Your task to perform on an android device: snooze an email in the gmail app Image 0: 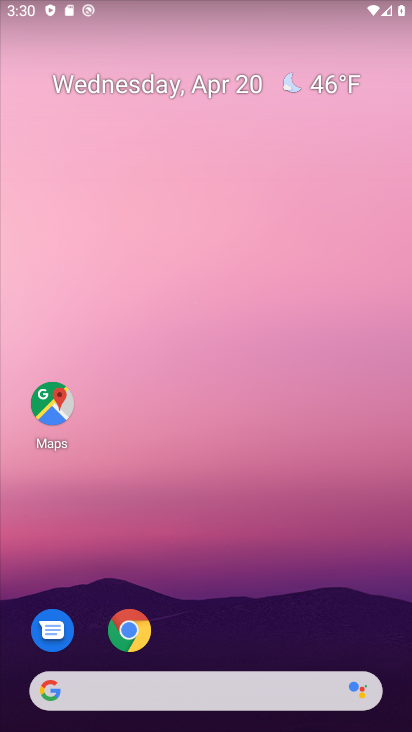
Step 0: drag from (141, 503) to (177, 247)
Your task to perform on an android device: snooze an email in the gmail app Image 1: 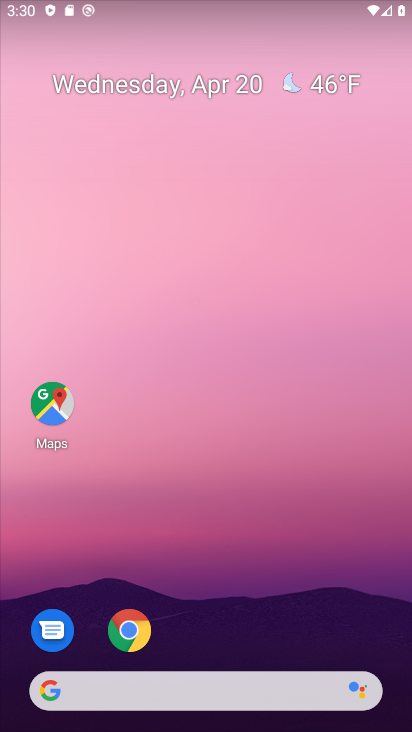
Step 1: drag from (177, 668) to (226, 256)
Your task to perform on an android device: snooze an email in the gmail app Image 2: 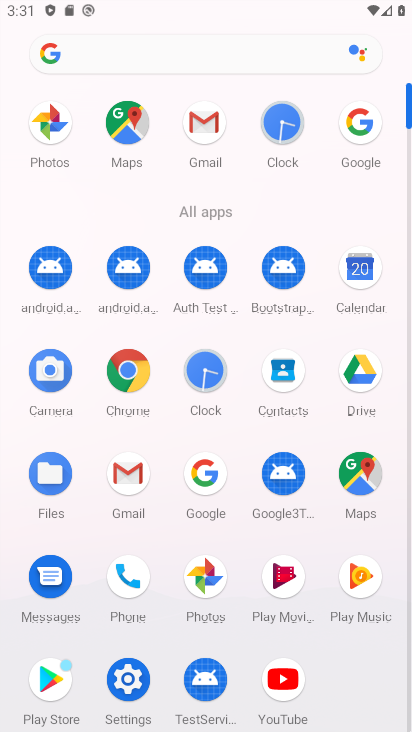
Step 2: click (117, 478)
Your task to perform on an android device: snooze an email in the gmail app Image 3: 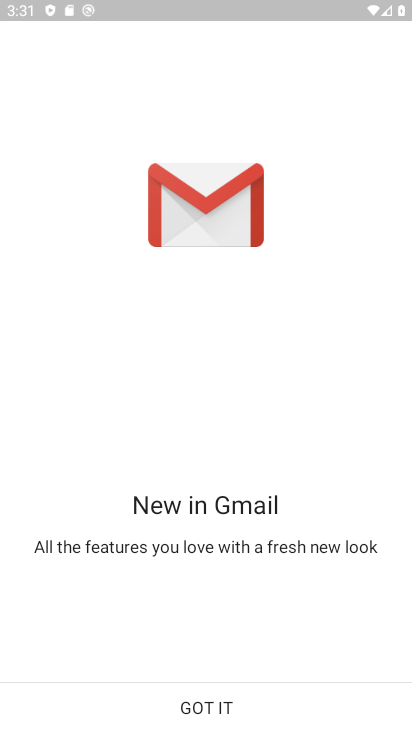
Step 3: click (202, 716)
Your task to perform on an android device: snooze an email in the gmail app Image 4: 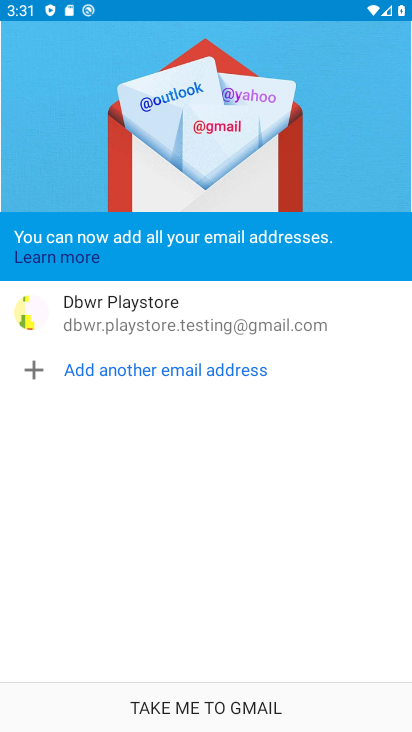
Step 4: click (173, 710)
Your task to perform on an android device: snooze an email in the gmail app Image 5: 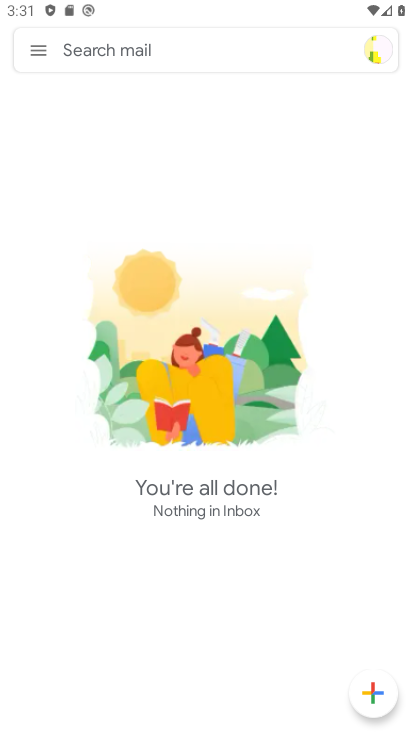
Step 5: click (40, 38)
Your task to perform on an android device: snooze an email in the gmail app Image 6: 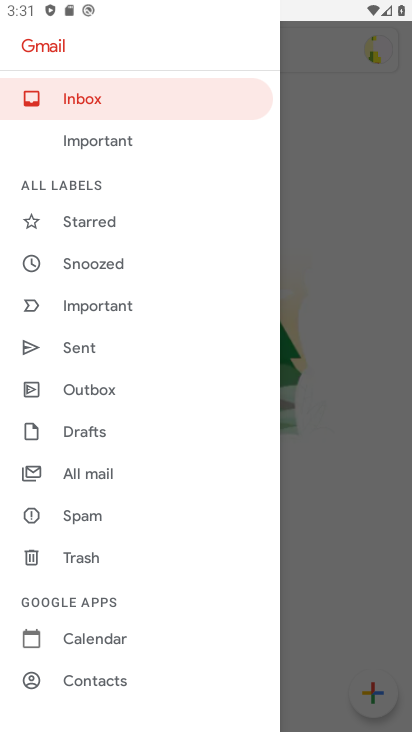
Step 6: click (81, 265)
Your task to perform on an android device: snooze an email in the gmail app Image 7: 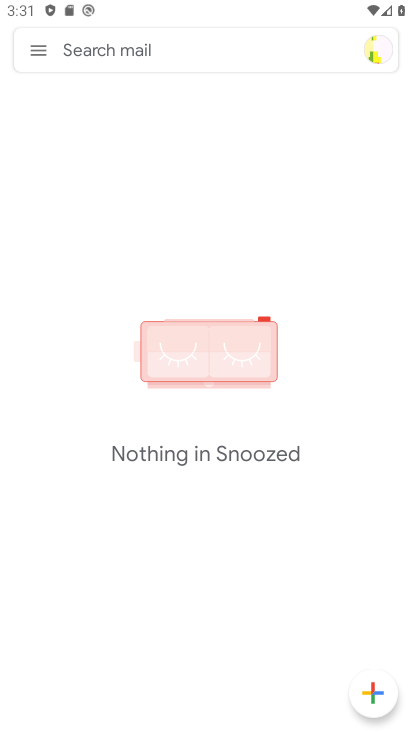
Step 7: task complete